Your task to perform on an android device: open app "eBay: The shopping marketplace" Image 0: 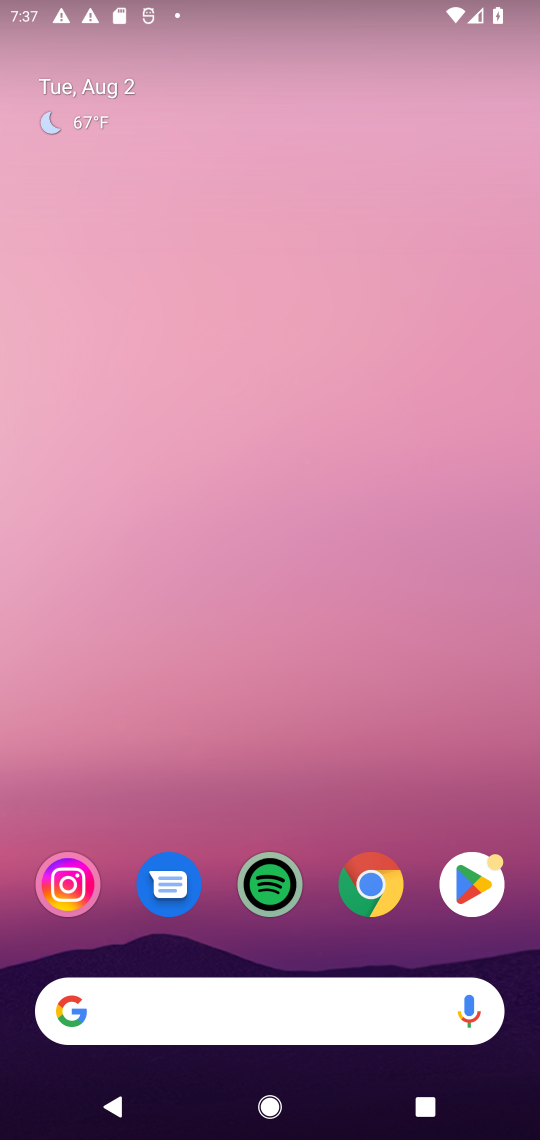
Step 0: press home button
Your task to perform on an android device: open app "eBay: The shopping marketplace" Image 1: 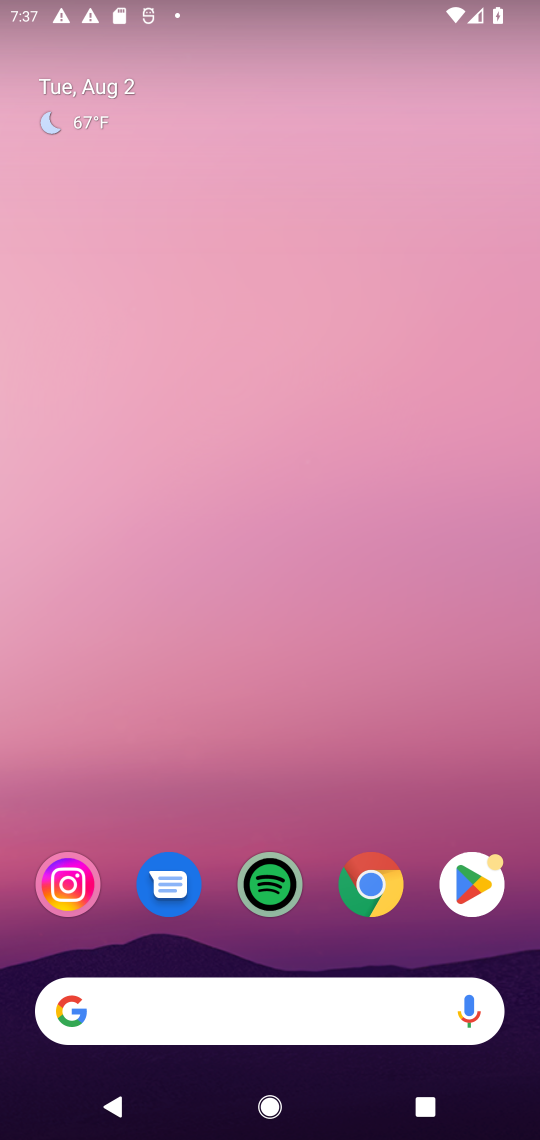
Step 1: click (470, 862)
Your task to perform on an android device: open app "eBay: The shopping marketplace" Image 2: 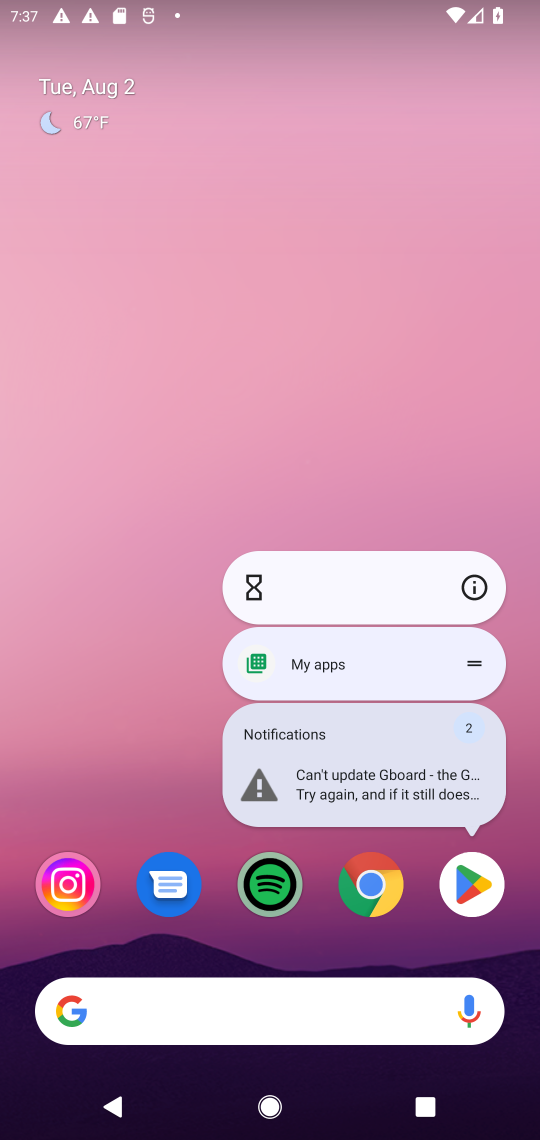
Step 2: click (487, 860)
Your task to perform on an android device: open app "eBay: The shopping marketplace" Image 3: 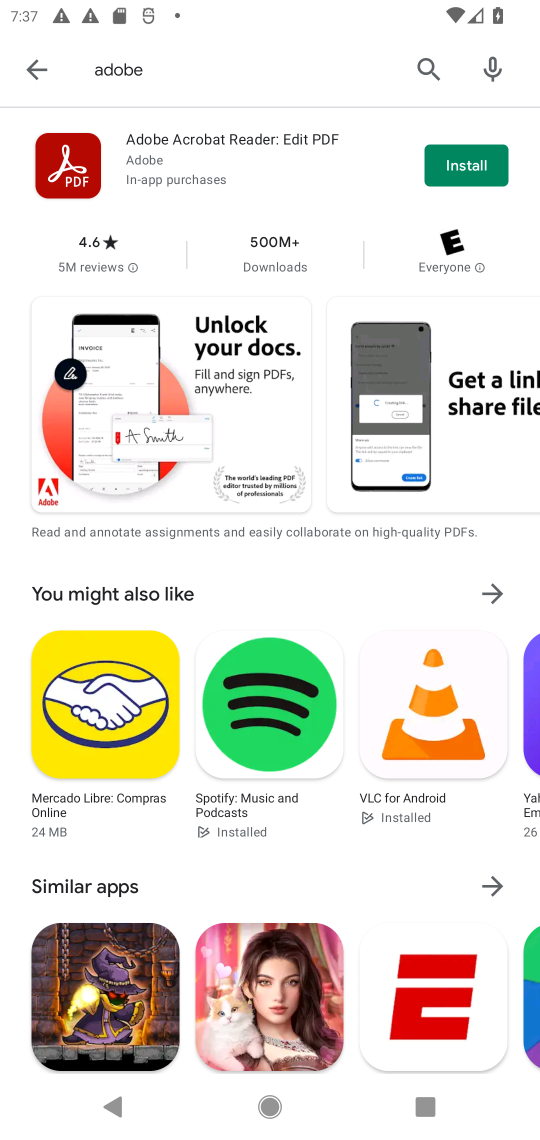
Step 3: click (441, 71)
Your task to perform on an android device: open app "eBay: The shopping marketplace" Image 4: 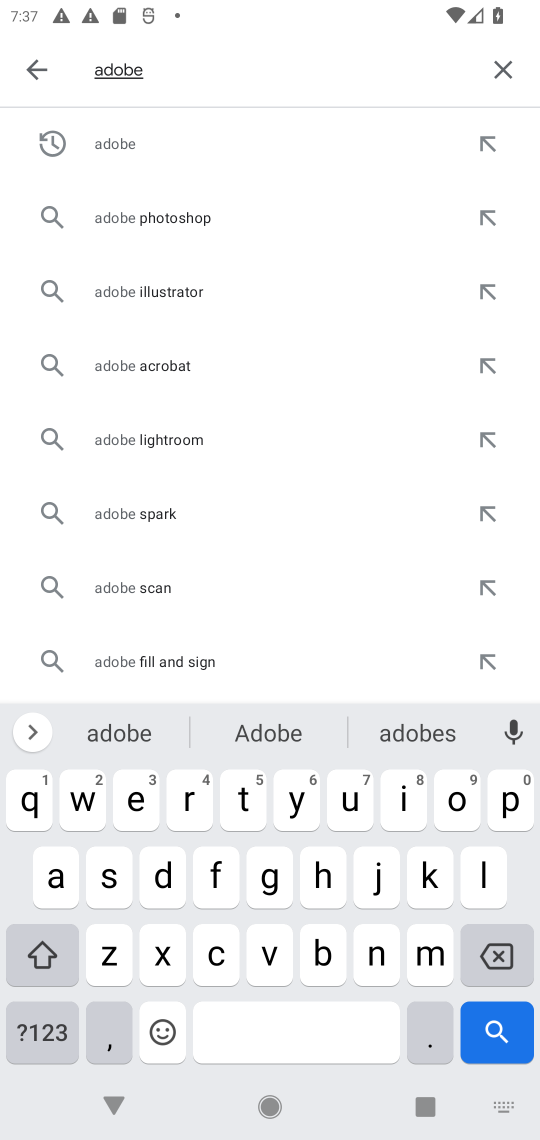
Step 4: click (514, 63)
Your task to perform on an android device: open app "eBay: The shopping marketplace" Image 5: 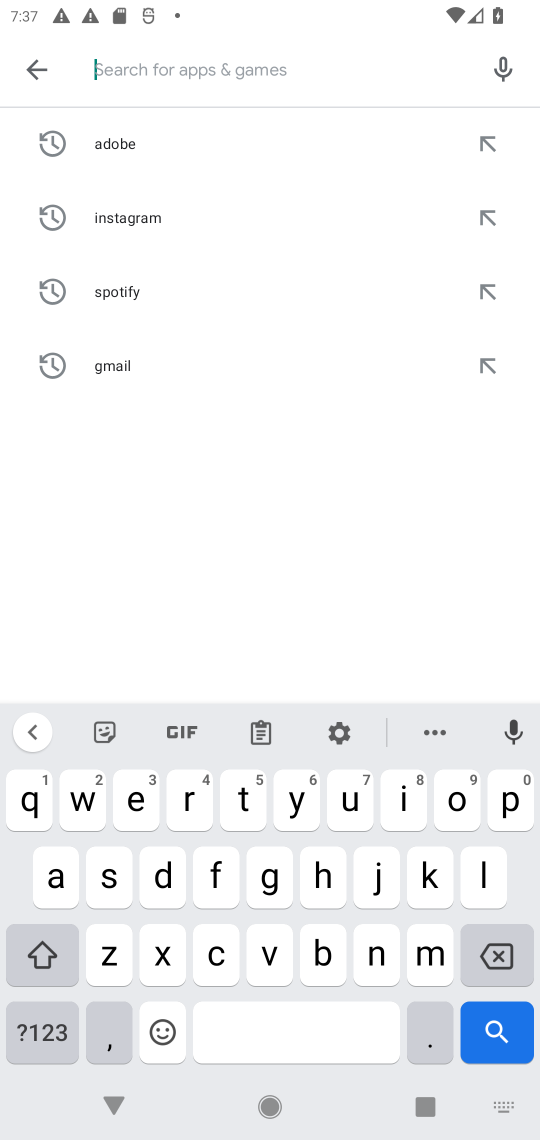
Step 5: click (136, 795)
Your task to perform on an android device: open app "eBay: The shopping marketplace" Image 6: 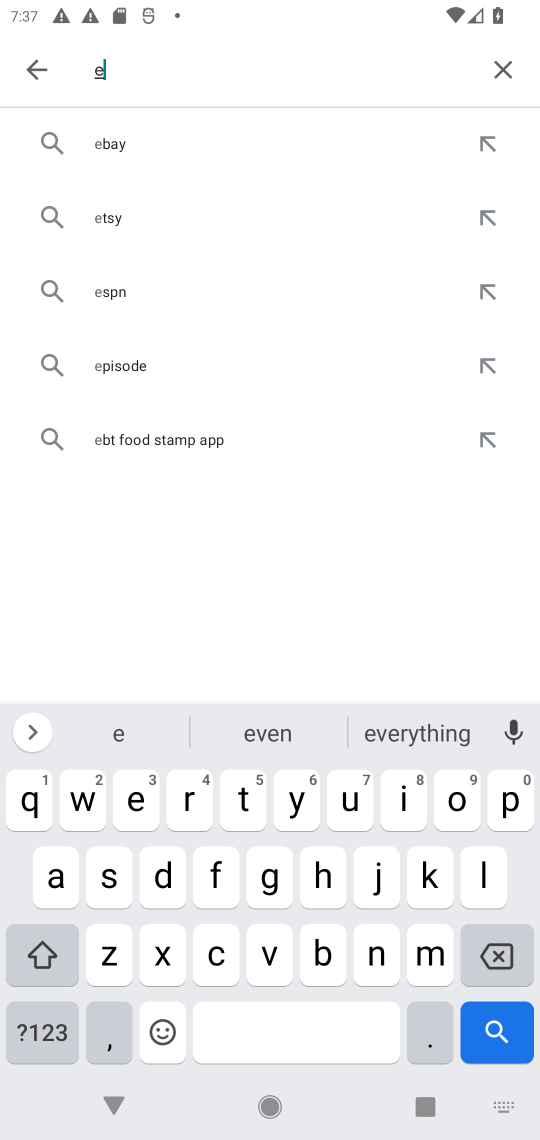
Step 6: click (320, 956)
Your task to perform on an android device: open app "eBay: The shopping marketplace" Image 7: 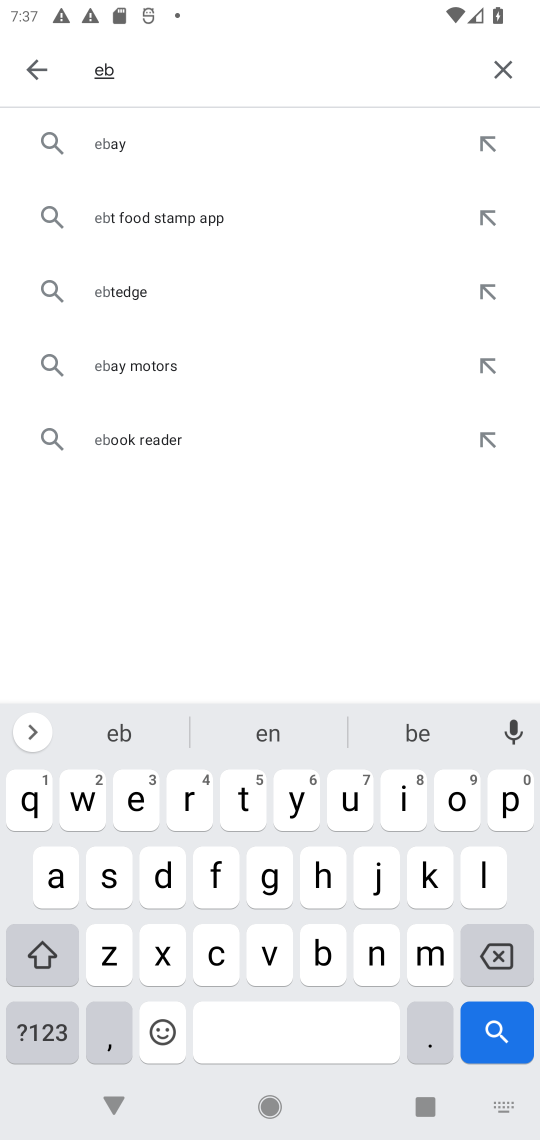
Step 7: click (178, 141)
Your task to perform on an android device: open app "eBay: The shopping marketplace" Image 8: 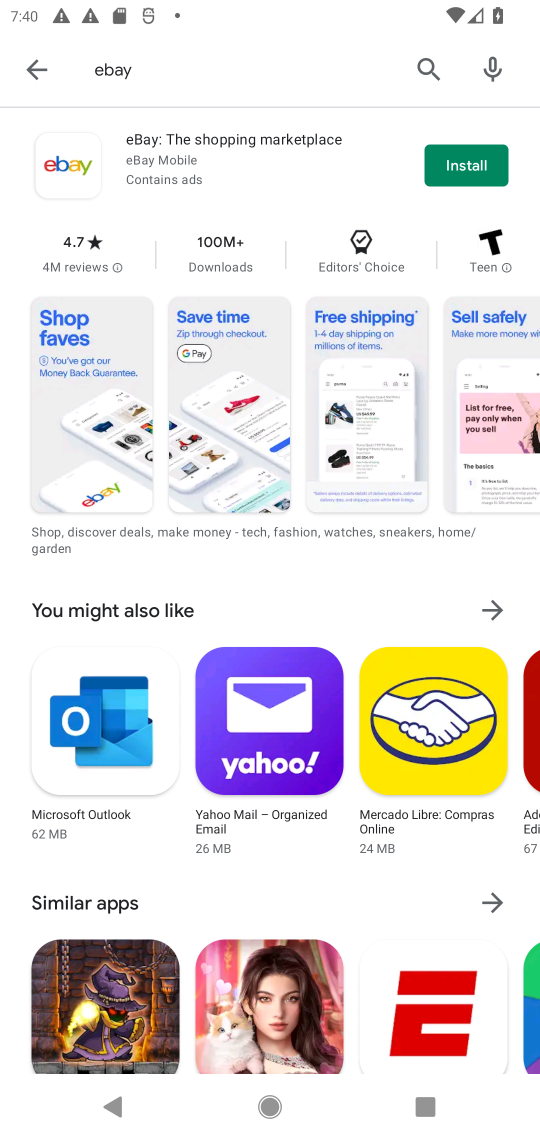
Step 8: task complete